Your task to perform on an android device: turn off location Image 0: 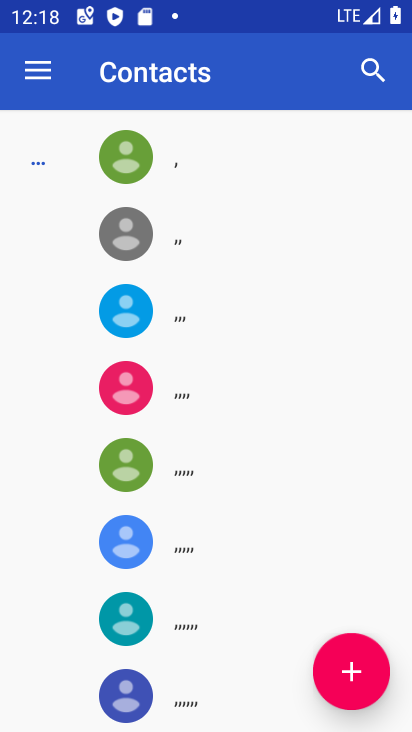
Step 0: press home button
Your task to perform on an android device: turn off location Image 1: 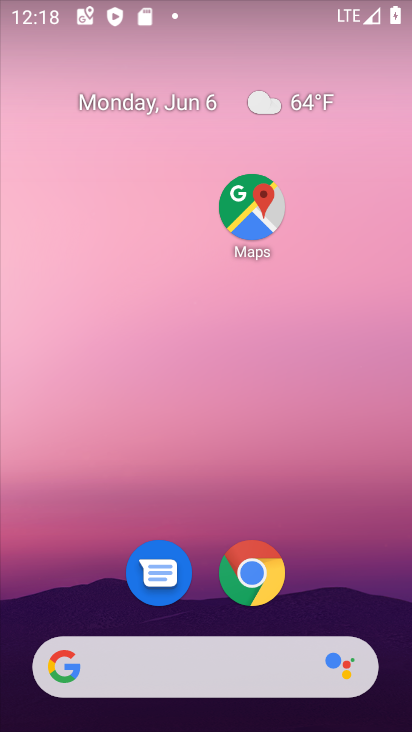
Step 1: drag from (213, 521) to (183, 95)
Your task to perform on an android device: turn off location Image 2: 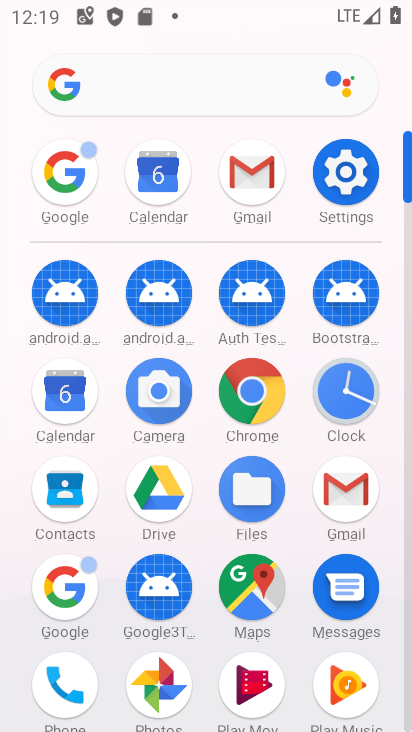
Step 2: drag from (200, 476) to (147, 42)
Your task to perform on an android device: turn off location Image 3: 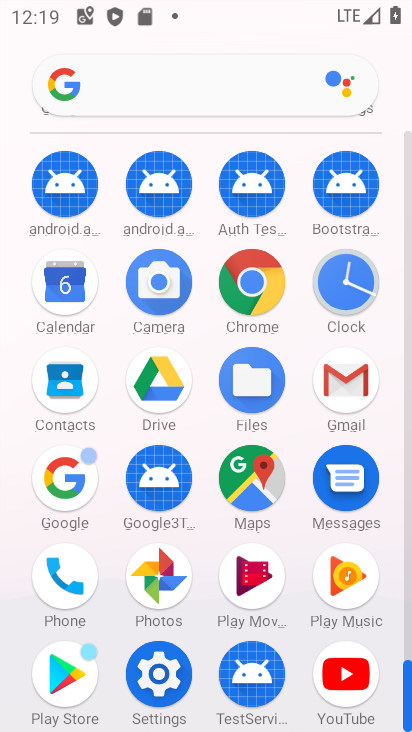
Step 3: click (156, 667)
Your task to perform on an android device: turn off location Image 4: 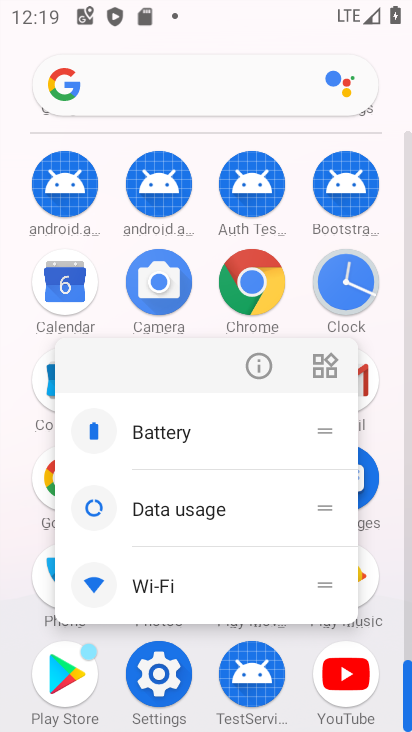
Step 4: click (161, 676)
Your task to perform on an android device: turn off location Image 5: 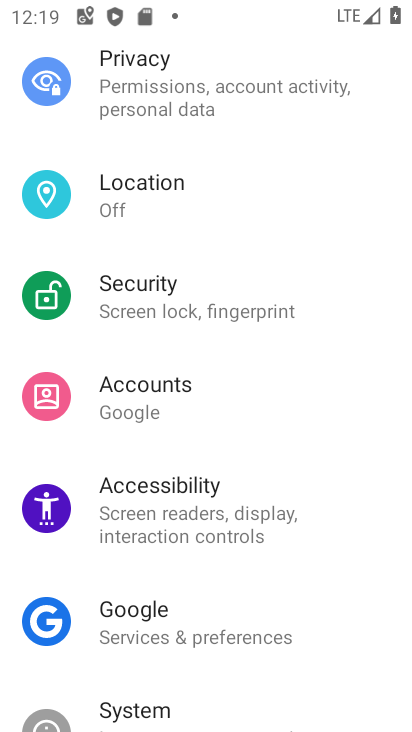
Step 5: drag from (267, 434) to (263, 655)
Your task to perform on an android device: turn off location Image 6: 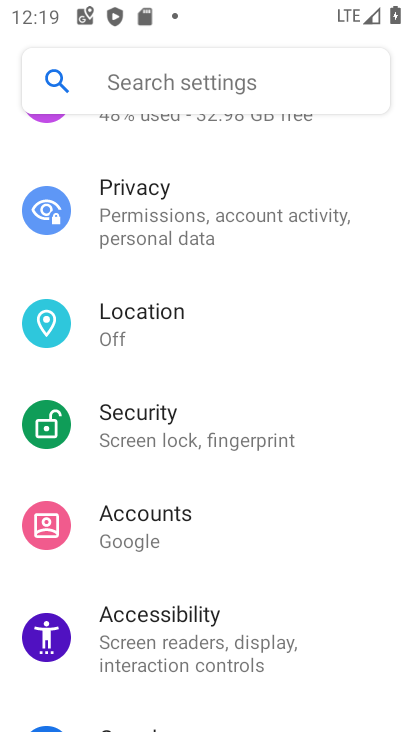
Step 6: click (147, 284)
Your task to perform on an android device: turn off location Image 7: 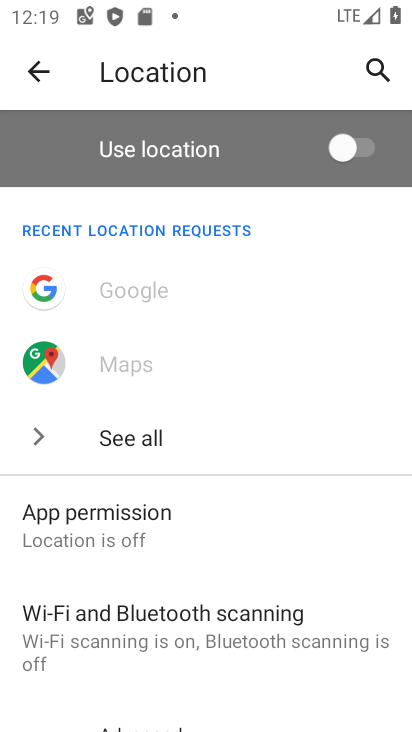
Step 7: task complete